Your task to perform on an android device: empty trash in google photos Image 0: 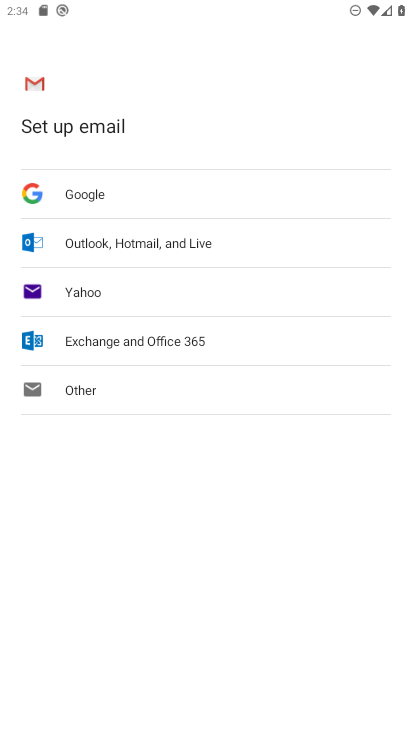
Step 0: press home button
Your task to perform on an android device: empty trash in google photos Image 1: 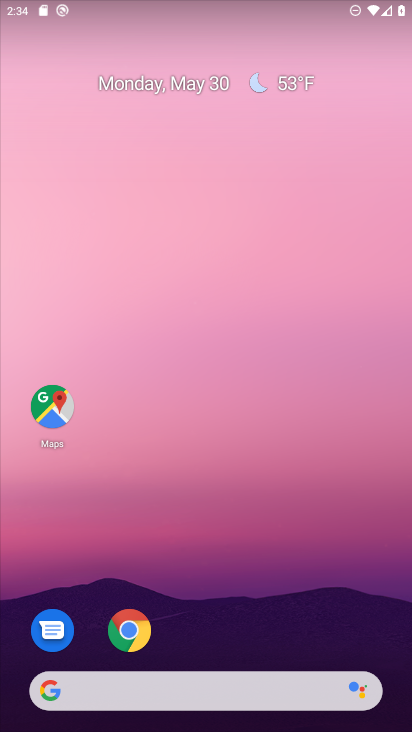
Step 1: drag from (230, 687) to (136, 149)
Your task to perform on an android device: empty trash in google photos Image 2: 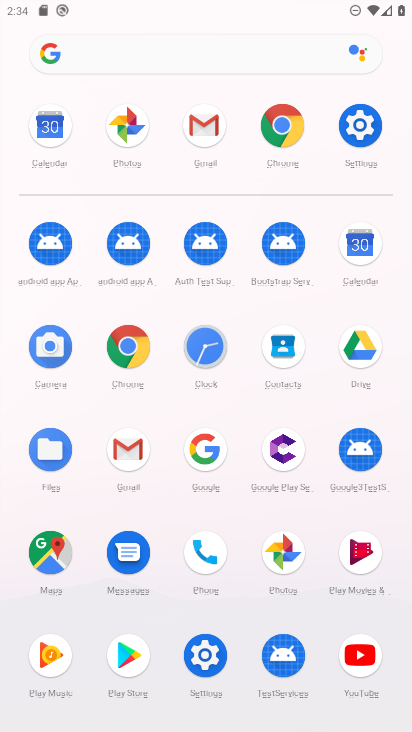
Step 2: click (271, 549)
Your task to perform on an android device: empty trash in google photos Image 3: 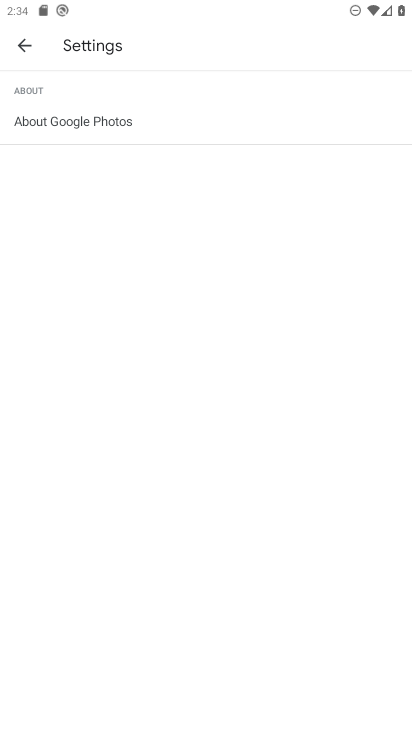
Step 3: click (30, 44)
Your task to perform on an android device: empty trash in google photos Image 4: 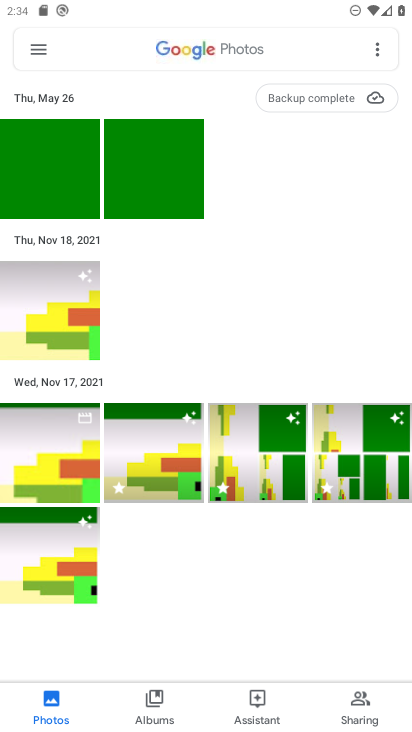
Step 4: click (37, 55)
Your task to perform on an android device: empty trash in google photos Image 5: 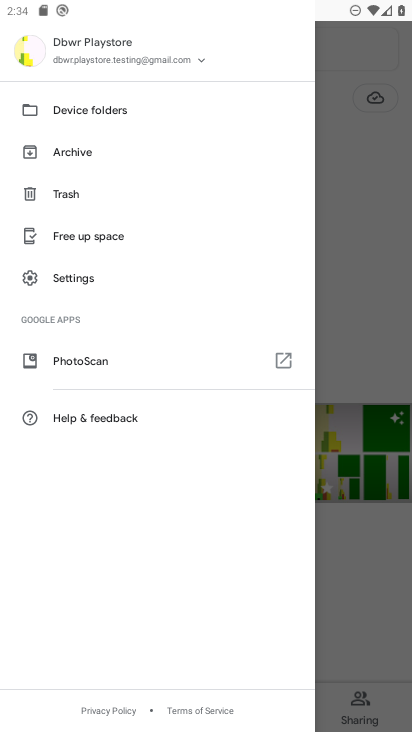
Step 5: click (56, 202)
Your task to perform on an android device: empty trash in google photos Image 6: 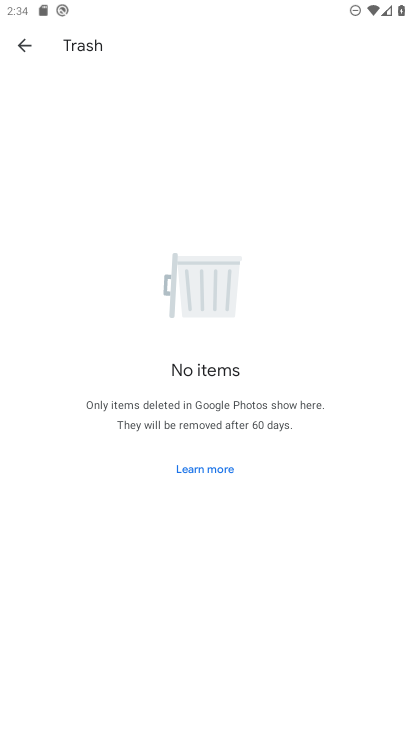
Step 6: task complete